Your task to perform on an android device: Go to location settings Image 0: 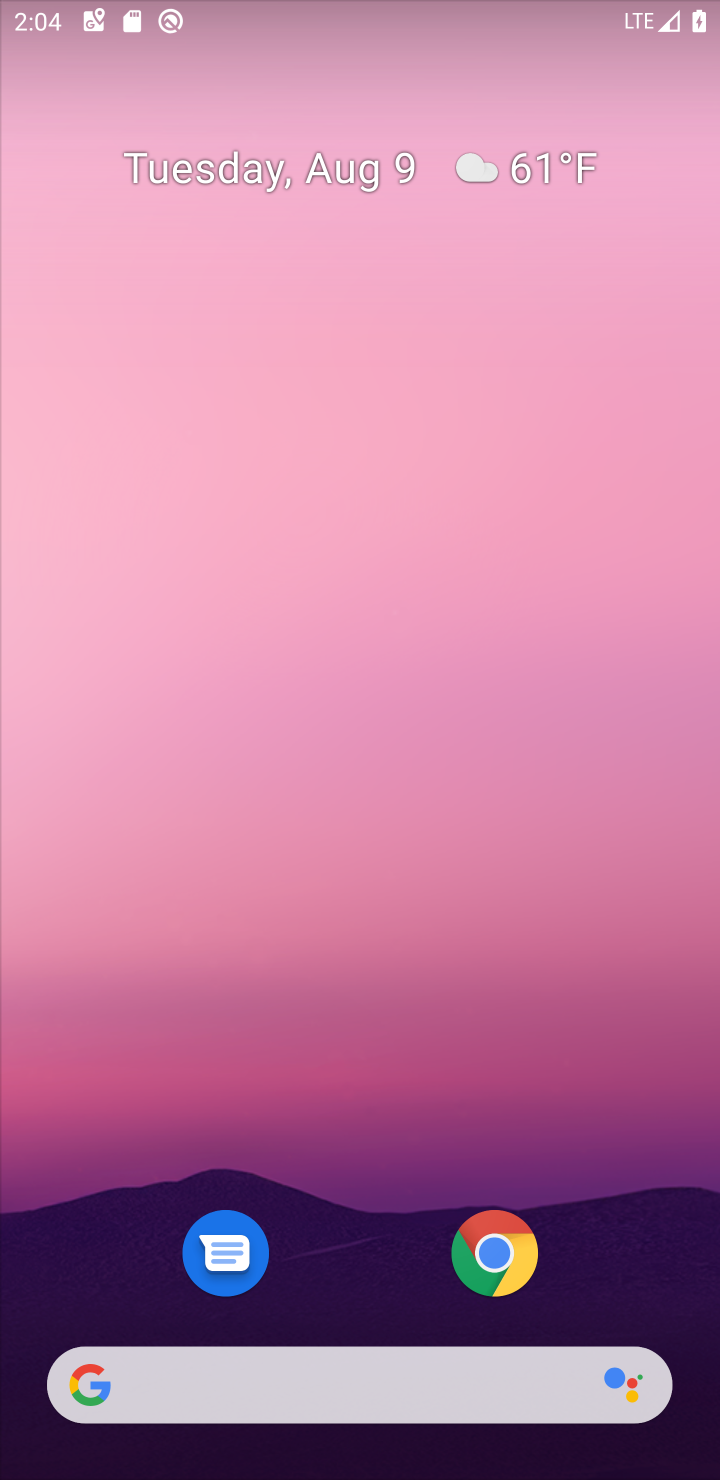
Step 0: drag from (633, 1236) to (482, 0)
Your task to perform on an android device: Go to location settings Image 1: 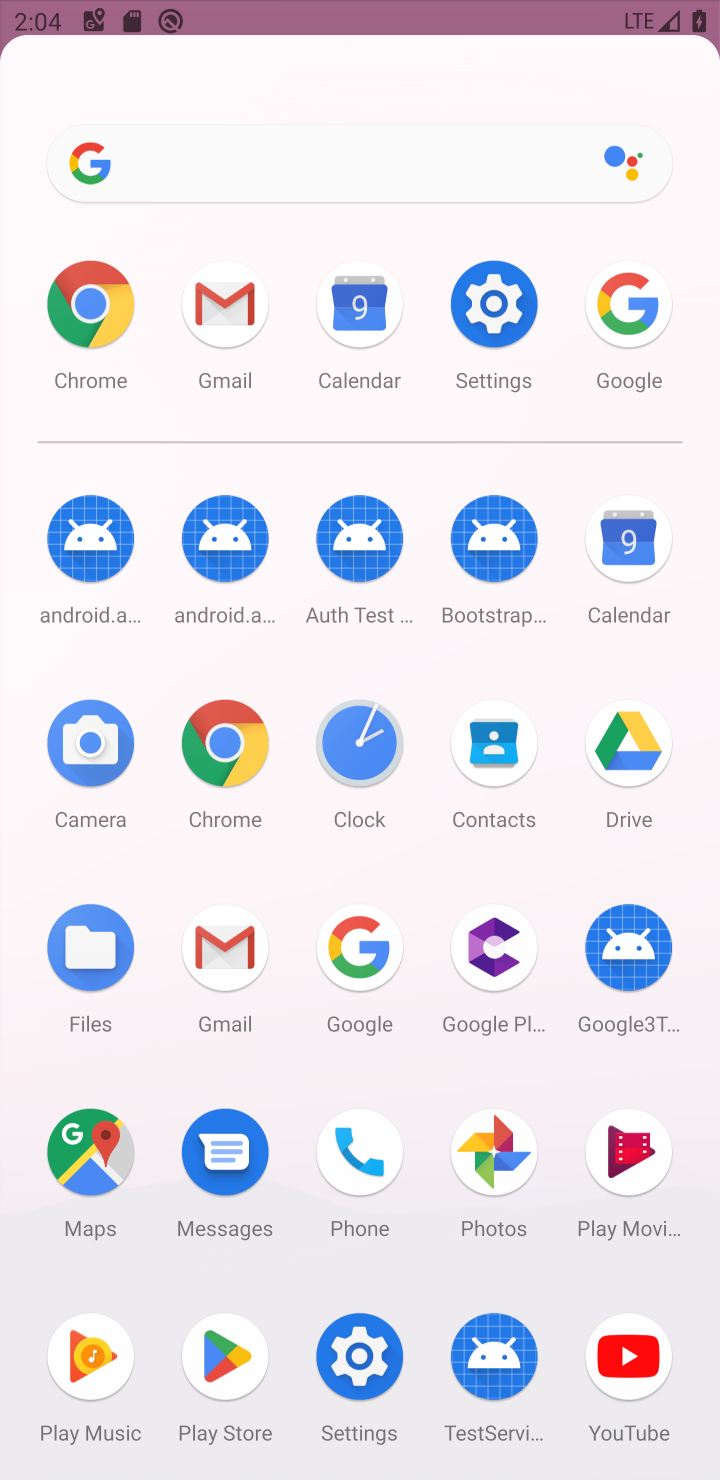
Step 1: click (358, 1346)
Your task to perform on an android device: Go to location settings Image 2: 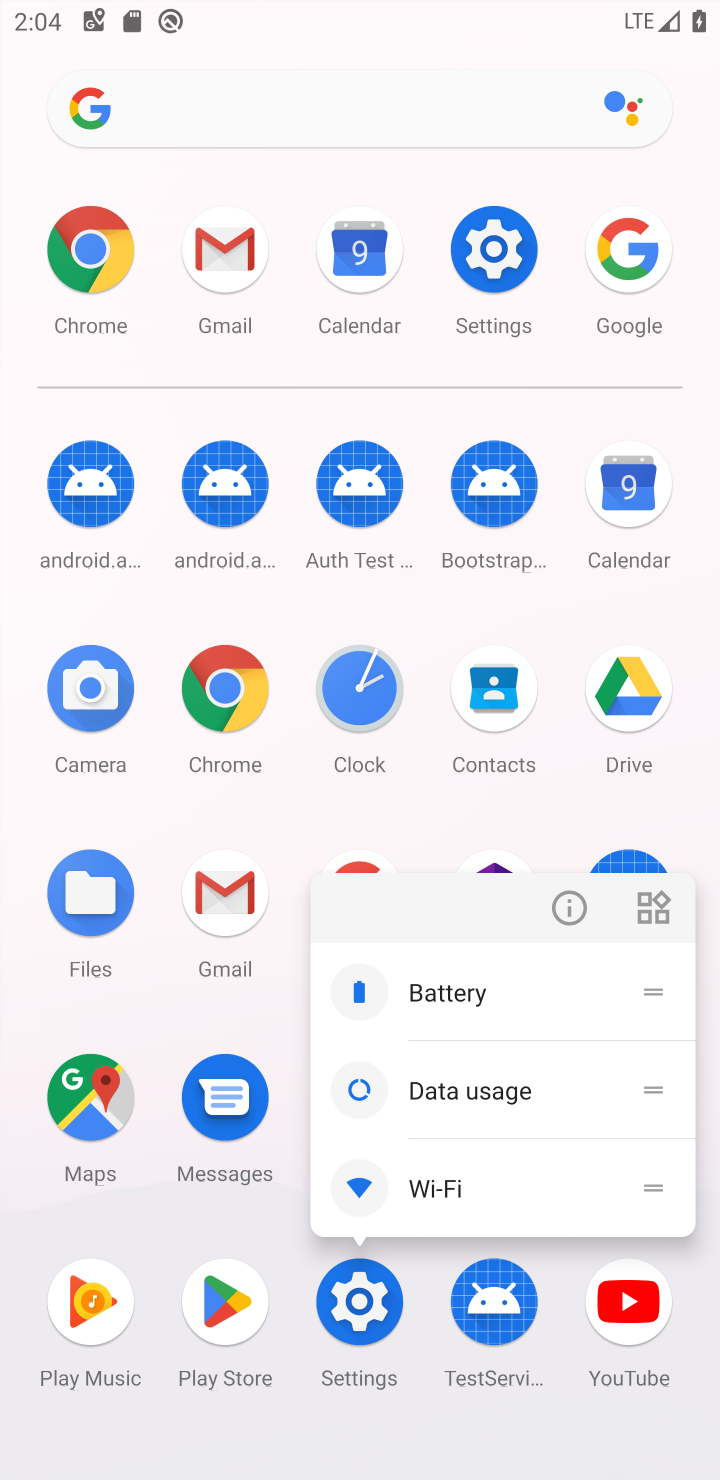
Step 2: click (358, 1346)
Your task to perform on an android device: Go to location settings Image 3: 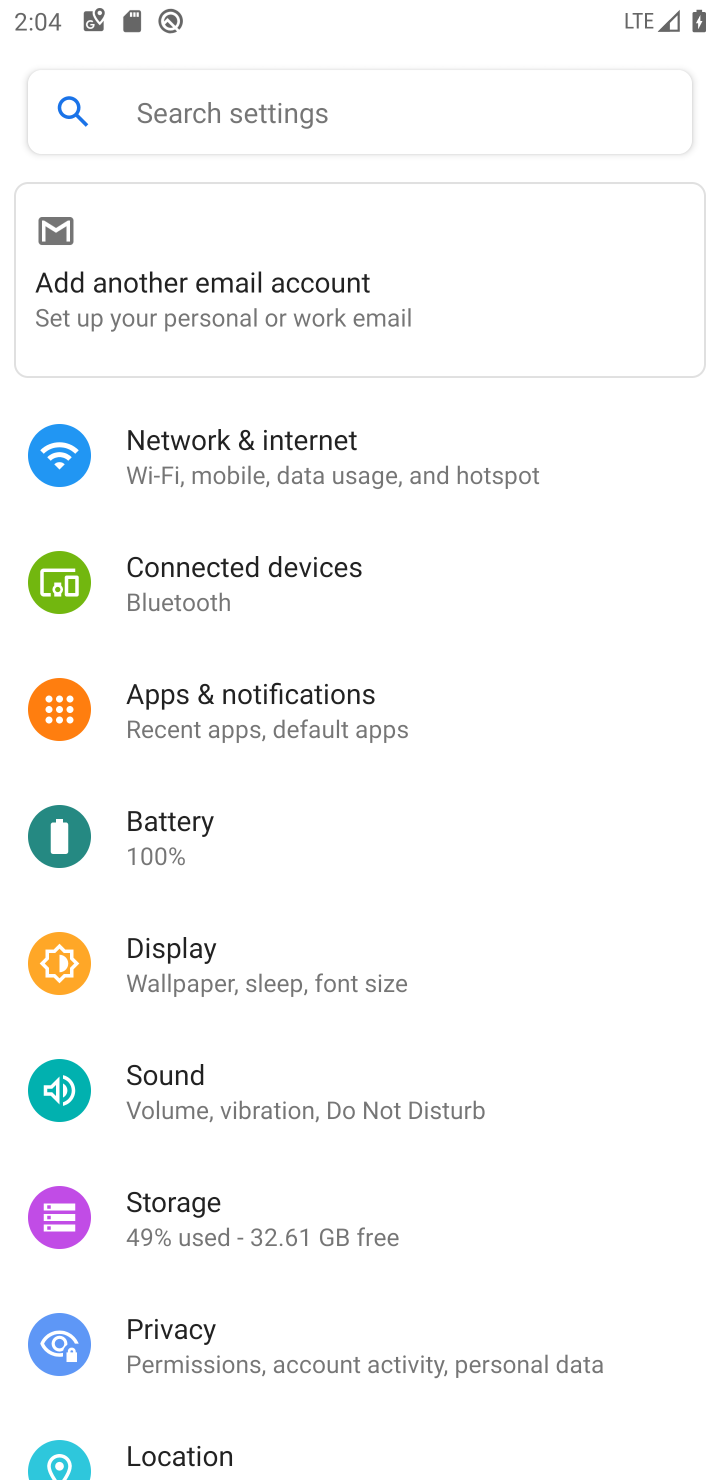
Step 3: click (233, 1449)
Your task to perform on an android device: Go to location settings Image 4: 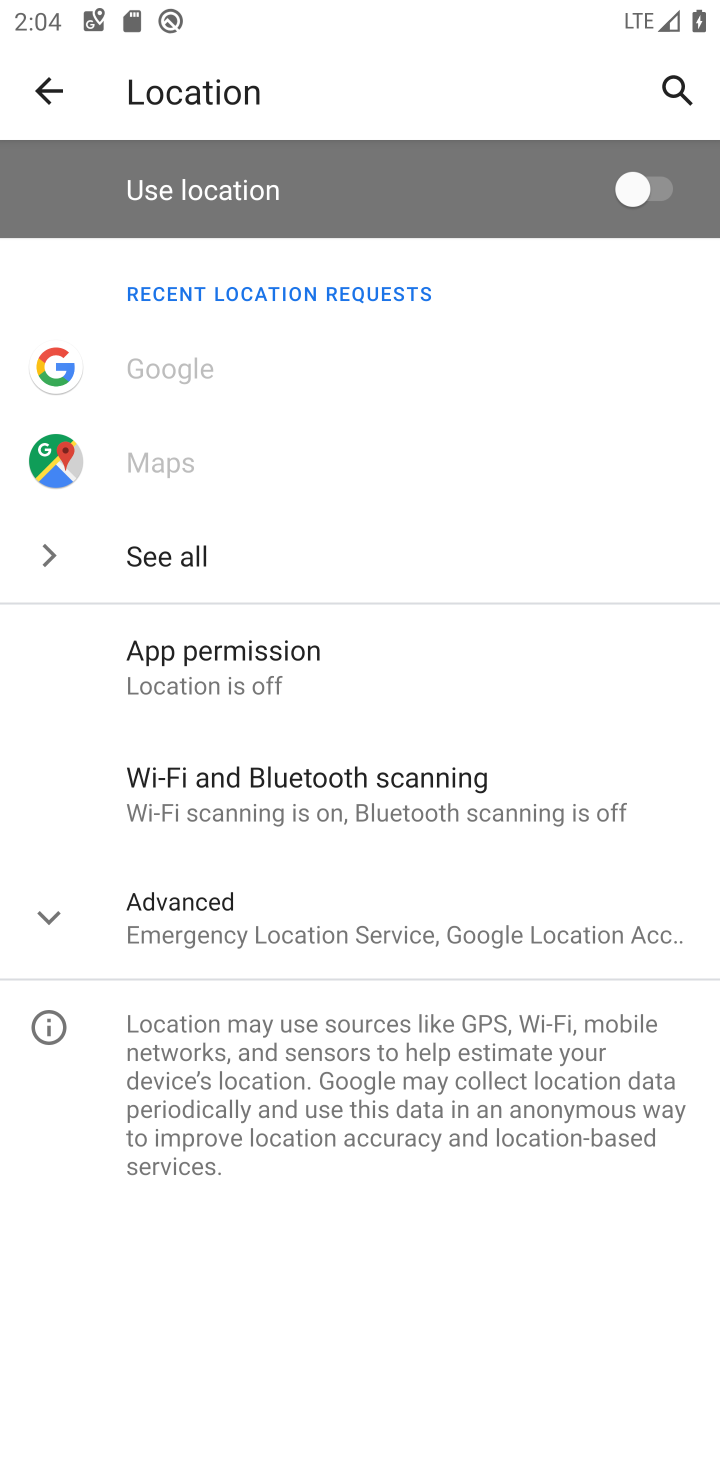
Step 4: task complete